Your task to perform on an android device: Go to Reddit Image 0: 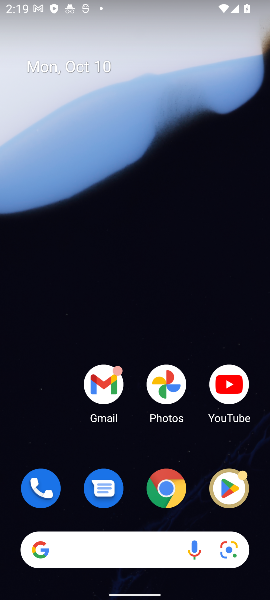
Step 0: click (163, 499)
Your task to perform on an android device: Go to Reddit Image 1: 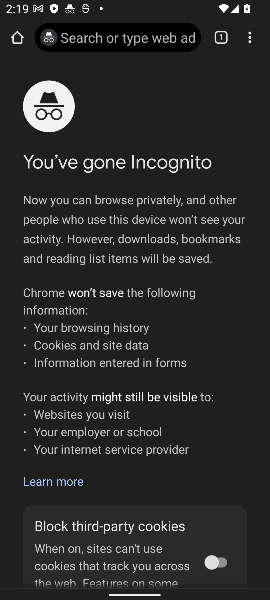
Step 1: click (217, 40)
Your task to perform on an android device: Go to Reddit Image 2: 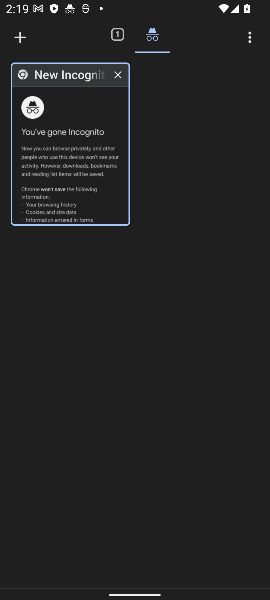
Step 2: click (116, 81)
Your task to perform on an android device: Go to Reddit Image 3: 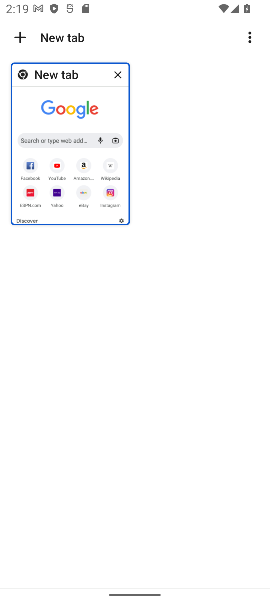
Step 3: click (45, 99)
Your task to perform on an android device: Go to Reddit Image 4: 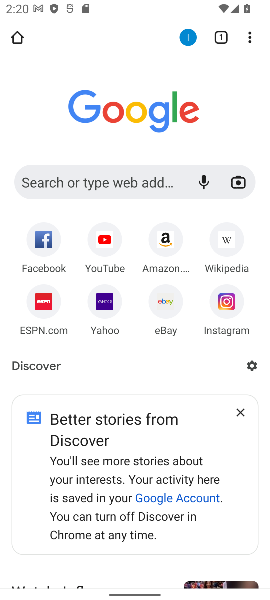
Step 4: click (120, 183)
Your task to perform on an android device: Go to Reddit Image 5: 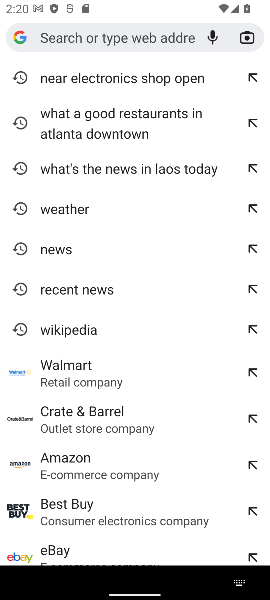
Step 5: type "reddit"
Your task to perform on an android device: Go to Reddit Image 6: 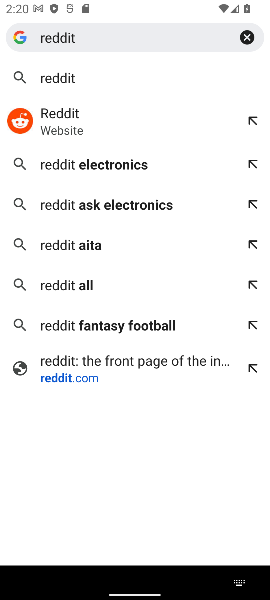
Step 6: click (111, 117)
Your task to perform on an android device: Go to Reddit Image 7: 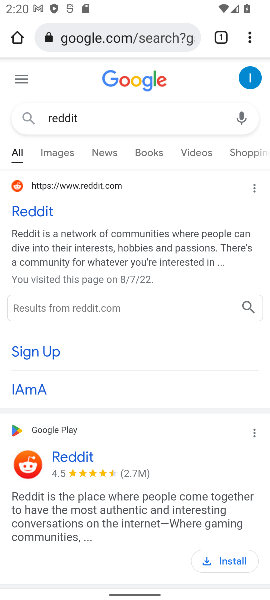
Step 7: click (32, 212)
Your task to perform on an android device: Go to Reddit Image 8: 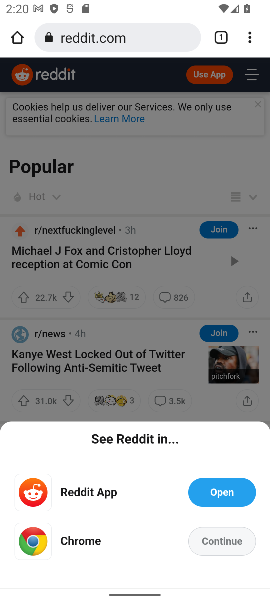
Step 8: task complete